Your task to perform on an android device: Open Wikipedia Image 0: 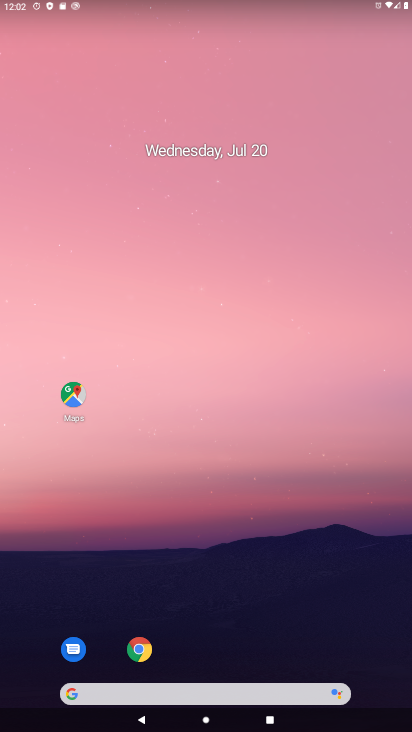
Step 0: click (140, 649)
Your task to perform on an android device: Open Wikipedia Image 1: 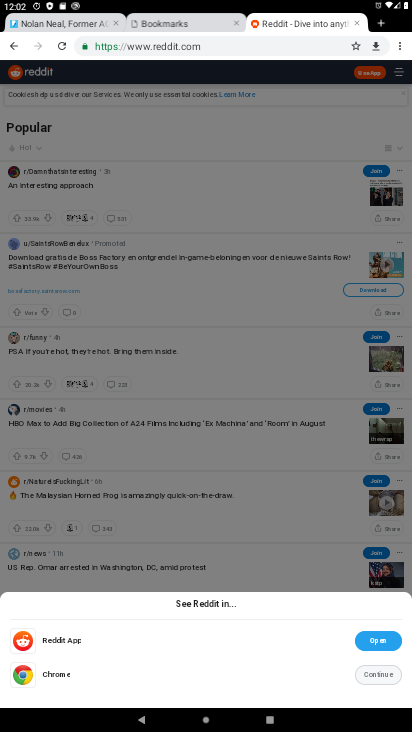
Step 1: click (400, 45)
Your task to perform on an android device: Open Wikipedia Image 2: 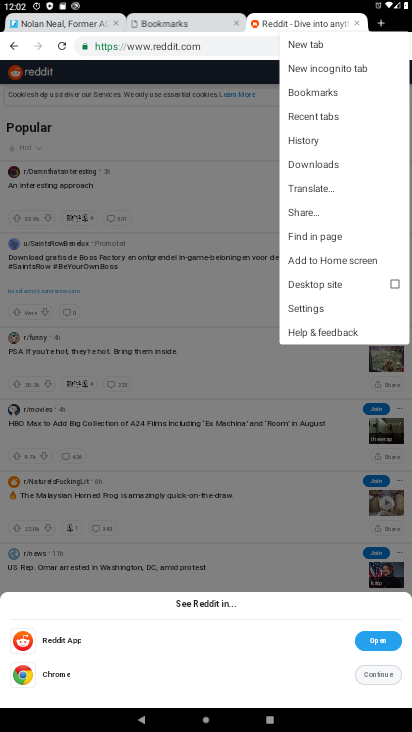
Step 2: click (312, 42)
Your task to perform on an android device: Open Wikipedia Image 3: 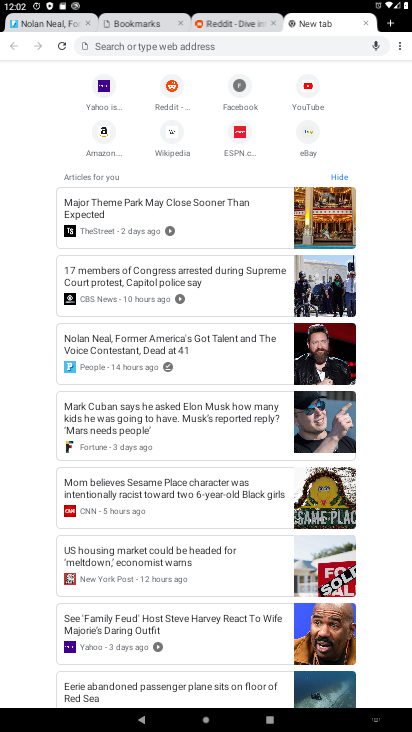
Step 3: click (168, 137)
Your task to perform on an android device: Open Wikipedia Image 4: 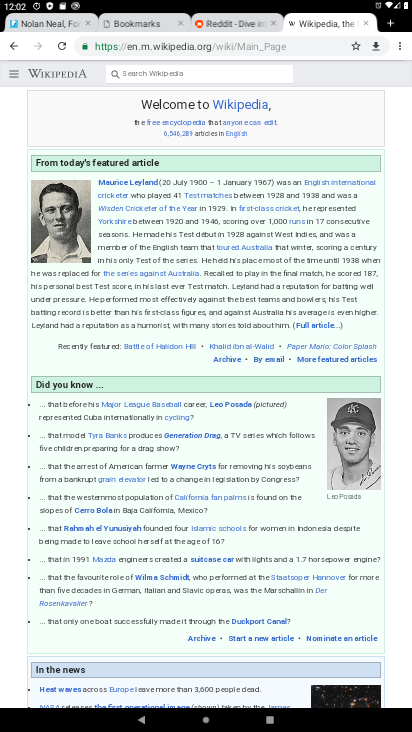
Step 4: task complete